Your task to perform on an android device: Search for Italian restaurants on Maps Image 0: 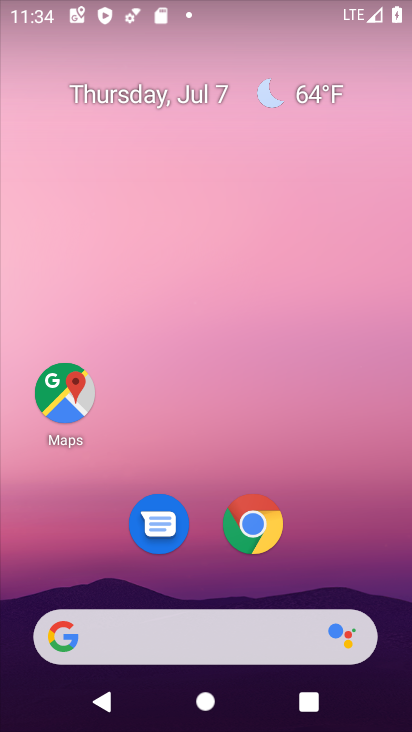
Step 0: click (67, 390)
Your task to perform on an android device: Search for Italian restaurants on Maps Image 1: 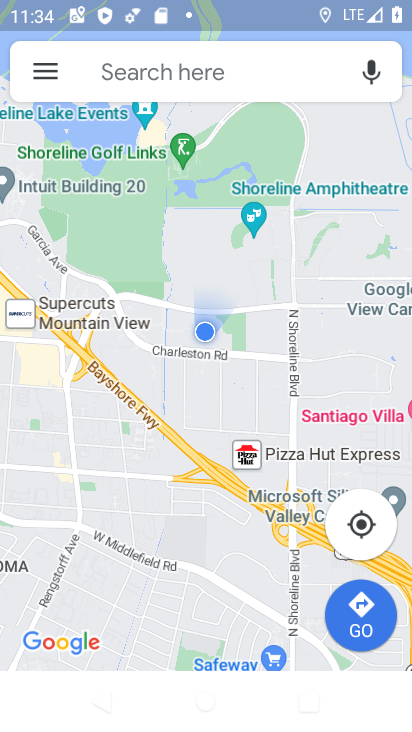
Step 1: click (228, 76)
Your task to perform on an android device: Search for Italian restaurants on Maps Image 2: 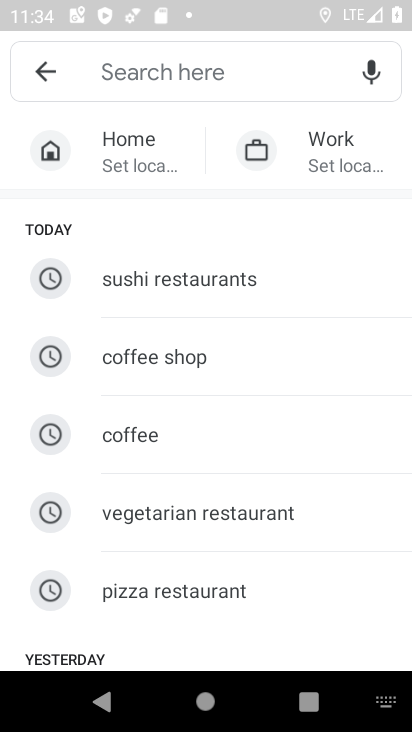
Step 2: type "Italian restaurants"
Your task to perform on an android device: Search for Italian restaurants on Maps Image 3: 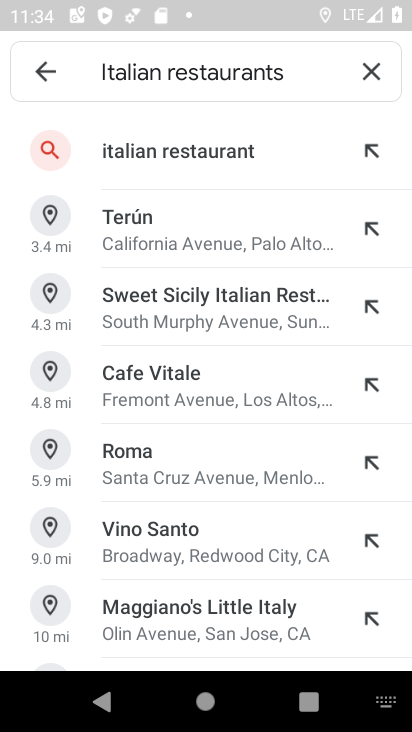
Step 3: click (243, 146)
Your task to perform on an android device: Search for Italian restaurants on Maps Image 4: 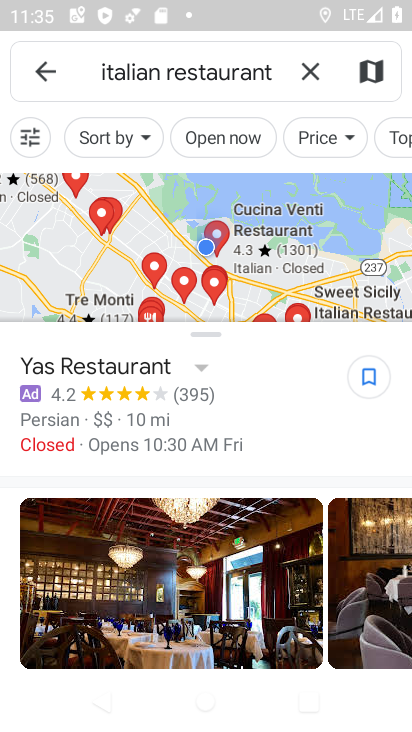
Step 4: task complete